Your task to perform on an android device: toggle improve location accuracy Image 0: 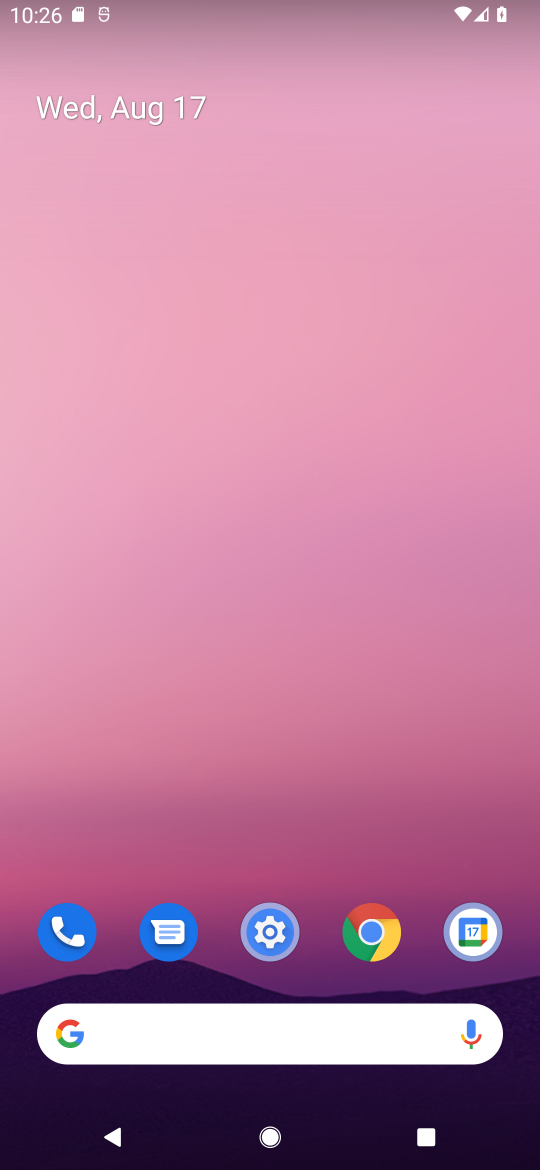
Step 0: drag from (309, 993) to (315, 9)
Your task to perform on an android device: toggle improve location accuracy Image 1: 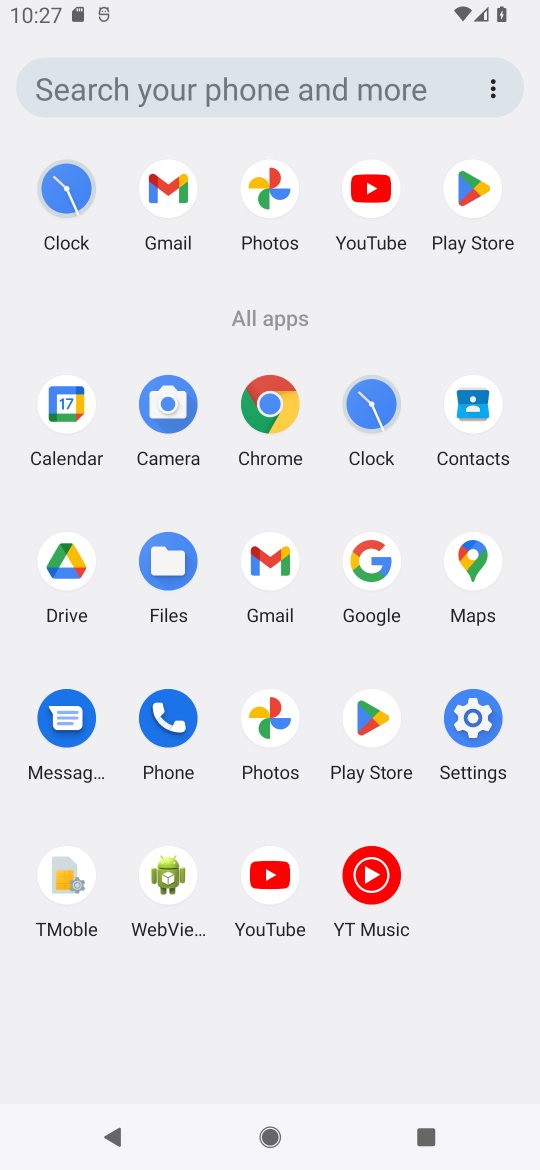
Step 1: click (478, 707)
Your task to perform on an android device: toggle improve location accuracy Image 2: 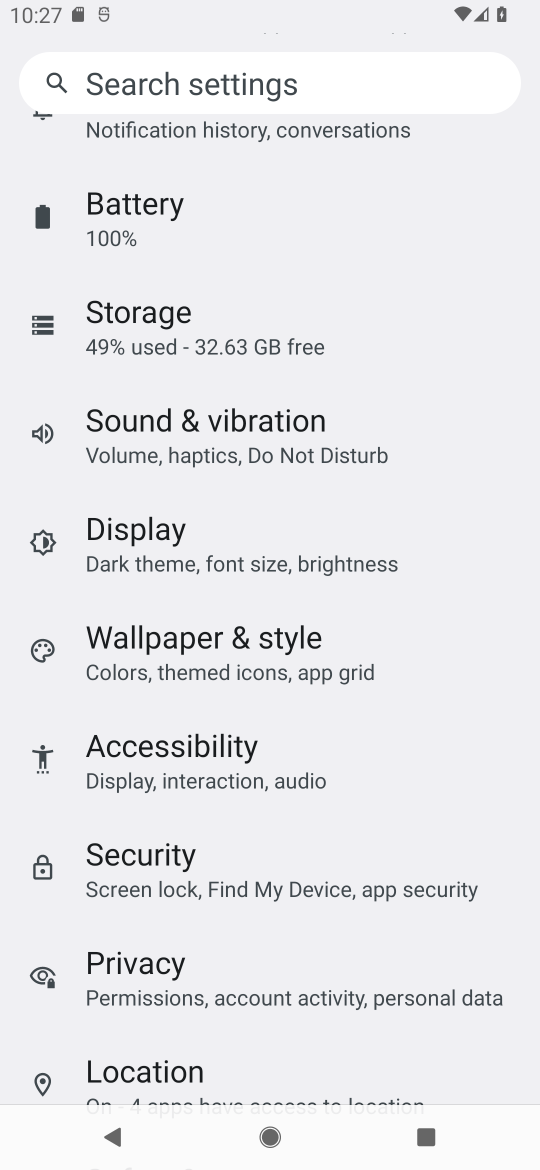
Step 2: click (159, 1070)
Your task to perform on an android device: toggle improve location accuracy Image 3: 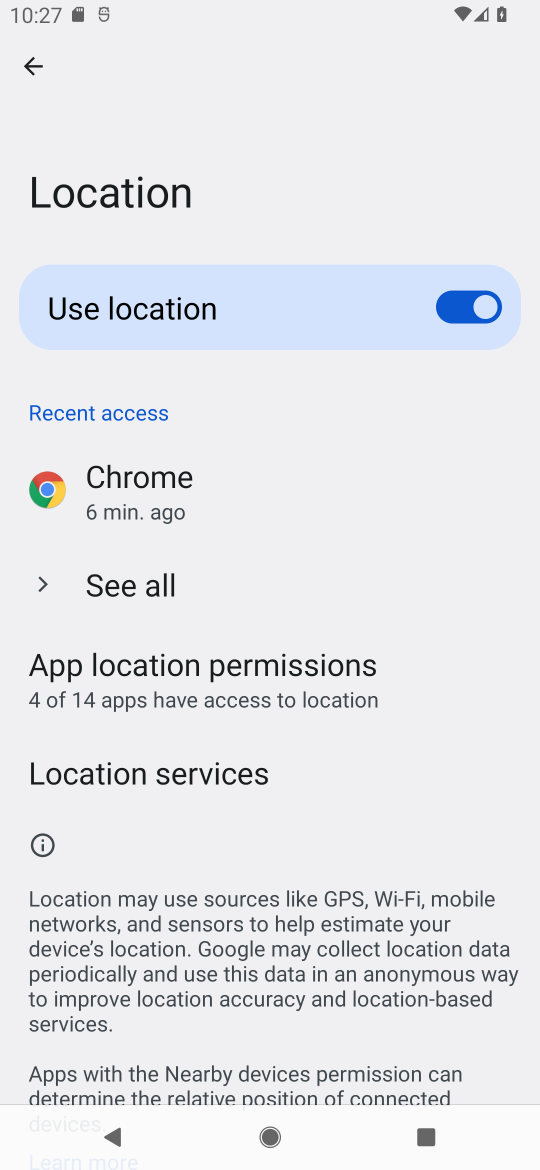
Step 3: click (167, 775)
Your task to perform on an android device: toggle improve location accuracy Image 4: 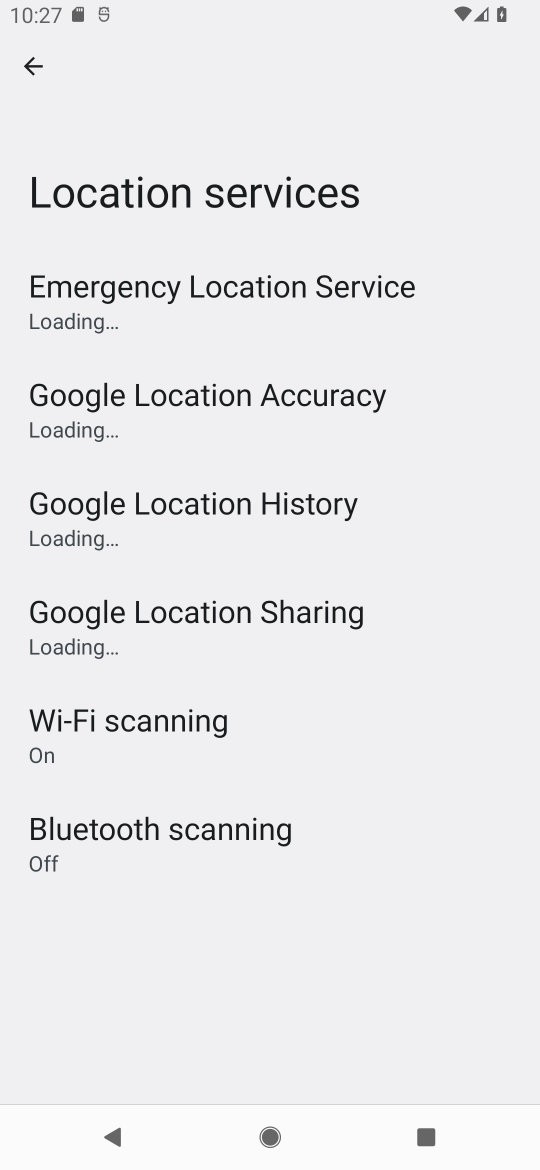
Step 4: click (284, 401)
Your task to perform on an android device: toggle improve location accuracy Image 5: 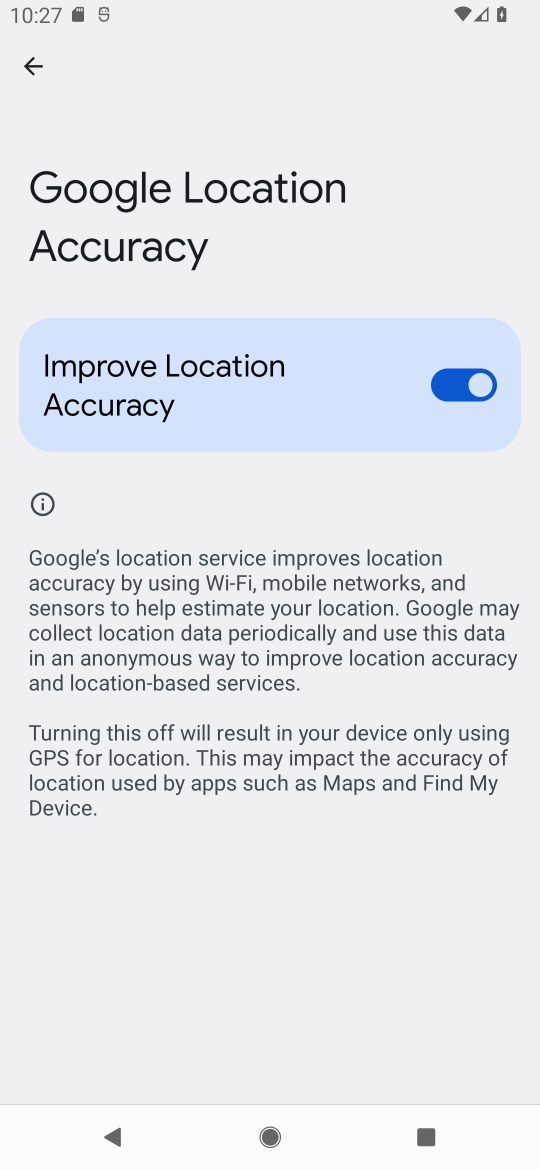
Step 5: click (462, 388)
Your task to perform on an android device: toggle improve location accuracy Image 6: 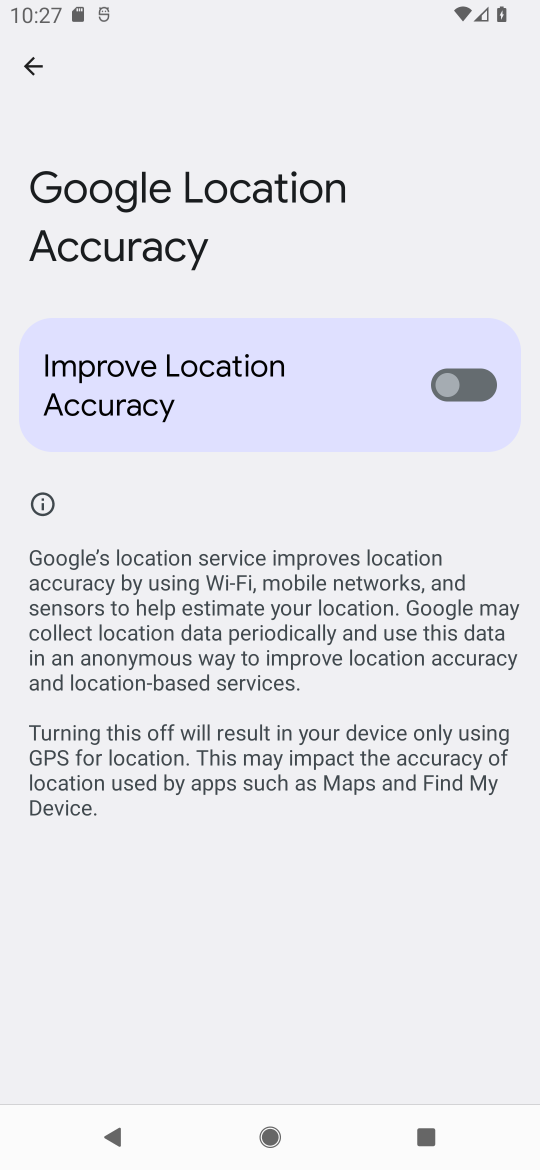
Step 6: task complete